Your task to perform on an android device: Open Chrome and go to settings Image 0: 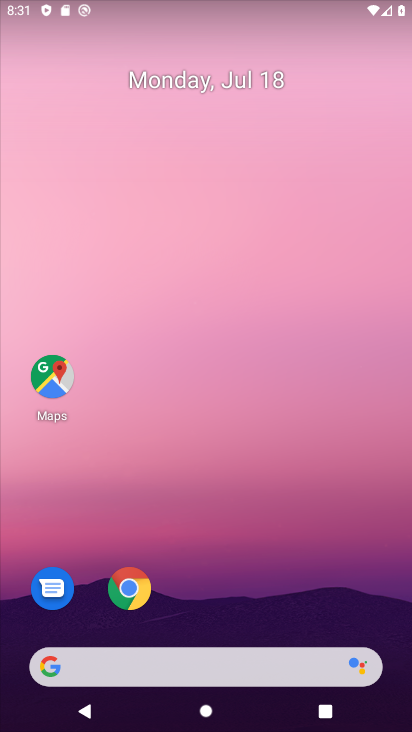
Step 0: drag from (274, 603) to (284, 36)
Your task to perform on an android device: Open Chrome and go to settings Image 1: 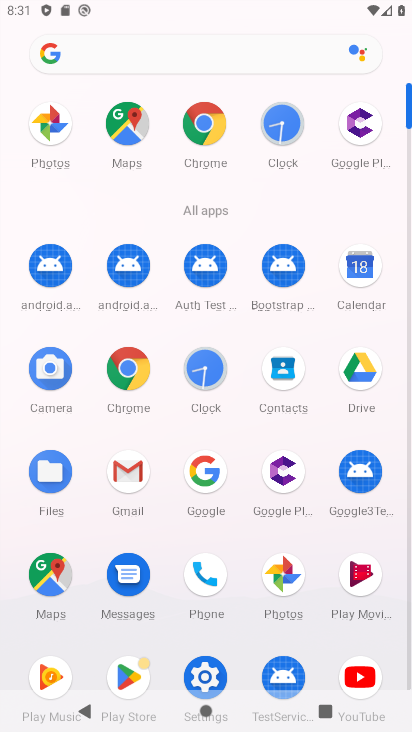
Step 1: click (122, 370)
Your task to perform on an android device: Open Chrome and go to settings Image 2: 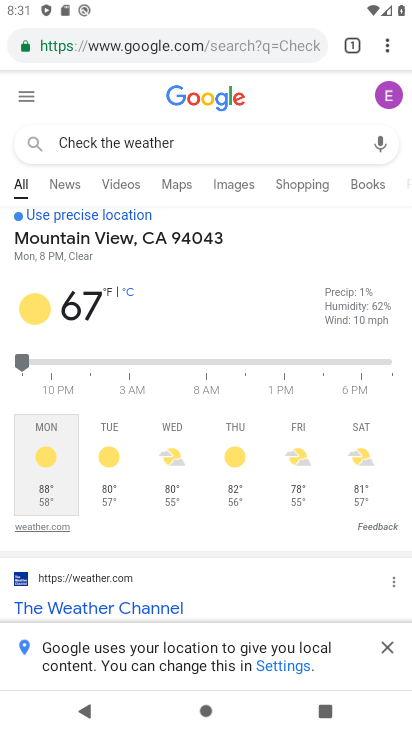
Step 2: task complete